Your task to perform on an android device: change notifications settings Image 0: 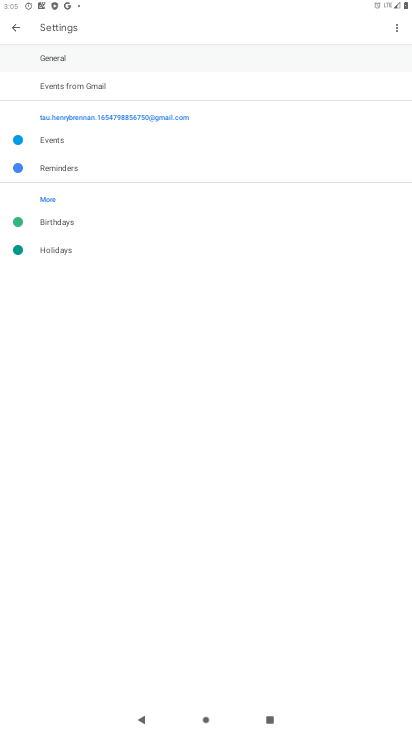
Step 0: press home button
Your task to perform on an android device: change notifications settings Image 1: 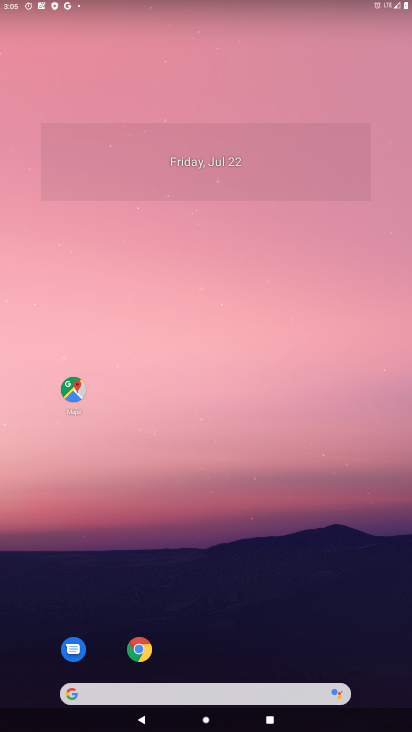
Step 1: drag from (309, 474) to (274, 22)
Your task to perform on an android device: change notifications settings Image 2: 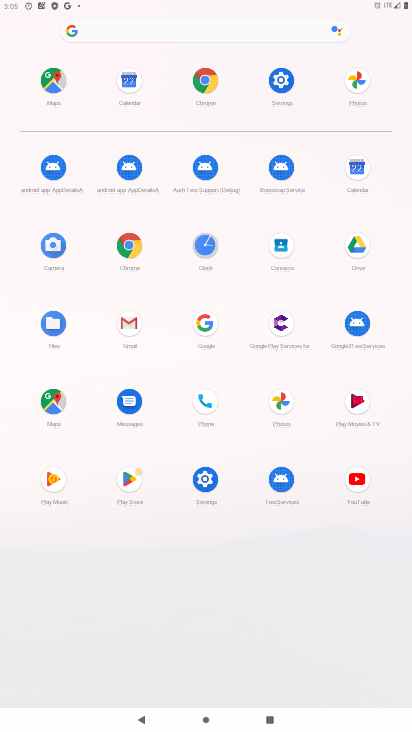
Step 2: click (283, 77)
Your task to perform on an android device: change notifications settings Image 3: 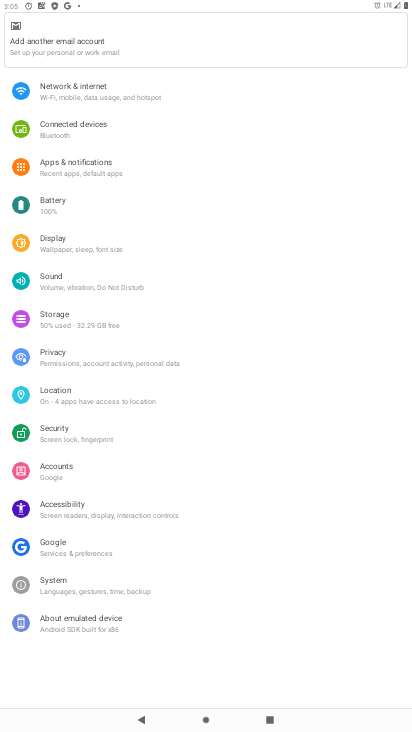
Step 3: click (109, 173)
Your task to perform on an android device: change notifications settings Image 4: 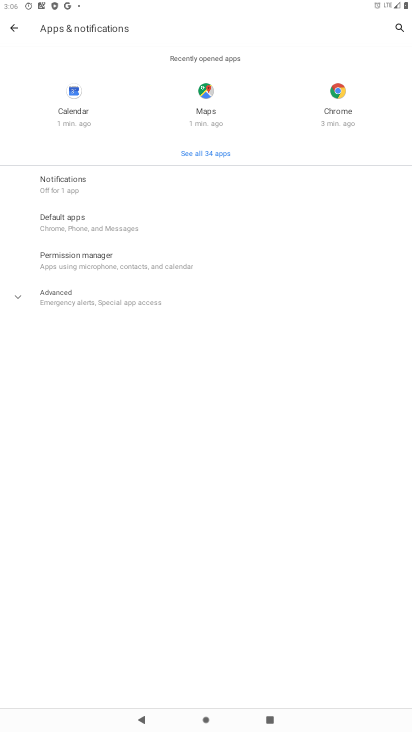
Step 4: click (60, 182)
Your task to perform on an android device: change notifications settings Image 5: 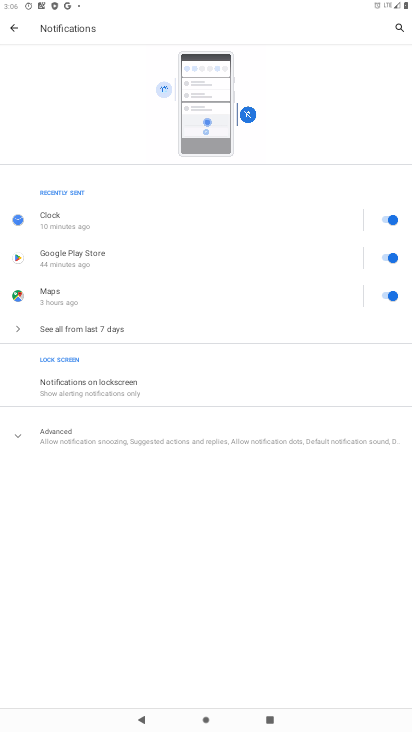
Step 5: task complete